Your task to perform on an android device: clear all cookies in the chrome app Image 0: 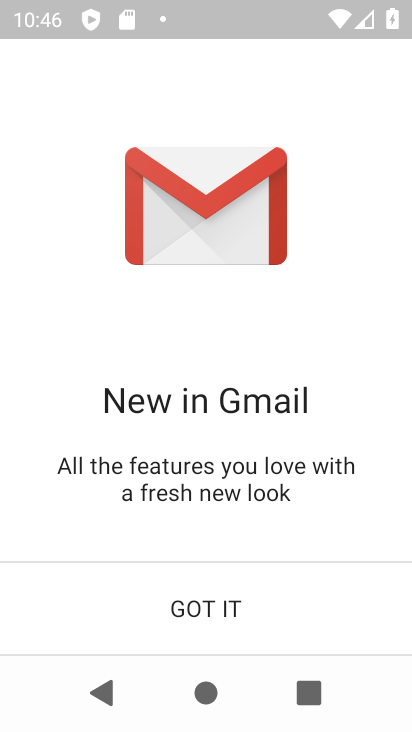
Step 0: press home button
Your task to perform on an android device: clear all cookies in the chrome app Image 1: 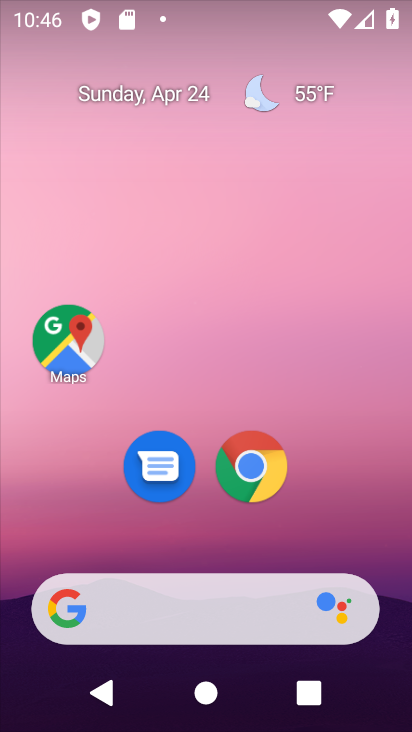
Step 1: click (254, 468)
Your task to perform on an android device: clear all cookies in the chrome app Image 2: 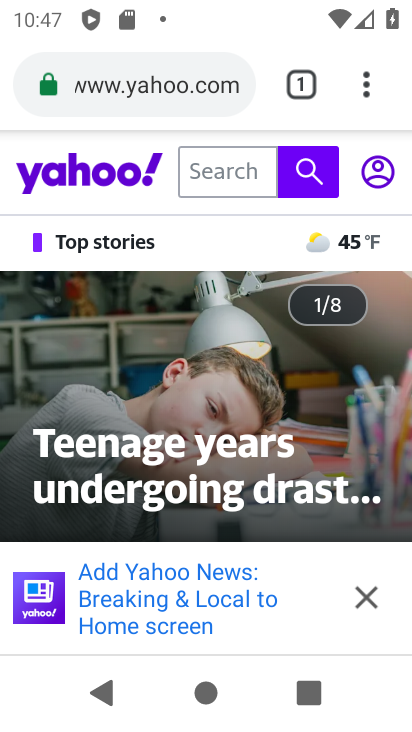
Step 2: drag from (369, 79) to (116, 521)
Your task to perform on an android device: clear all cookies in the chrome app Image 3: 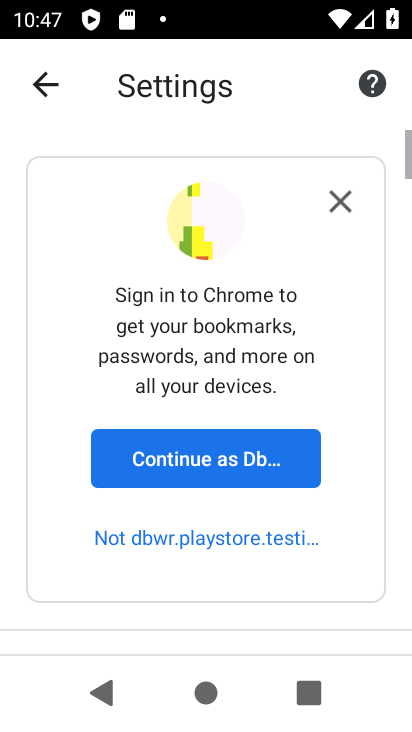
Step 3: drag from (232, 591) to (216, 156)
Your task to perform on an android device: clear all cookies in the chrome app Image 4: 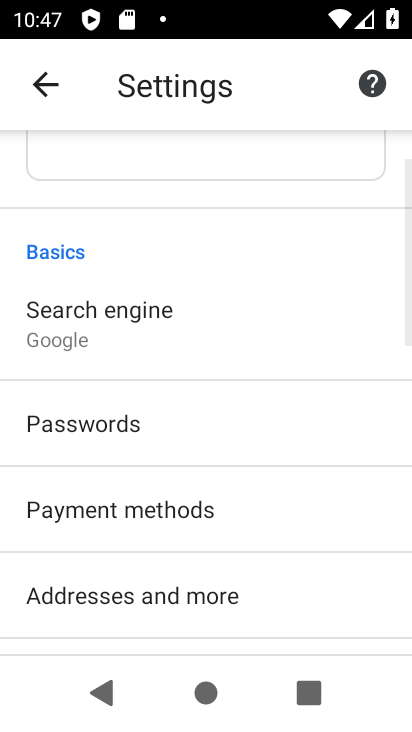
Step 4: drag from (194, 521) to (217, 140)
Your task to perform on an android device: clear all cookies in the chrome app Image 5: 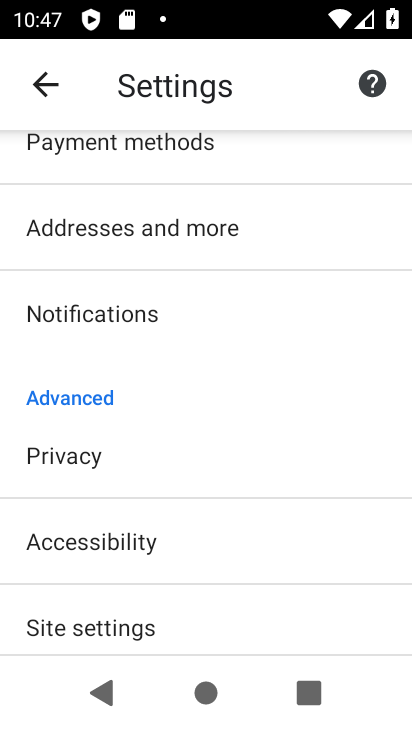
Step 5: click (71, 458)
Your task to perform on an android device: clear all cookies in the chrome app Image 6: 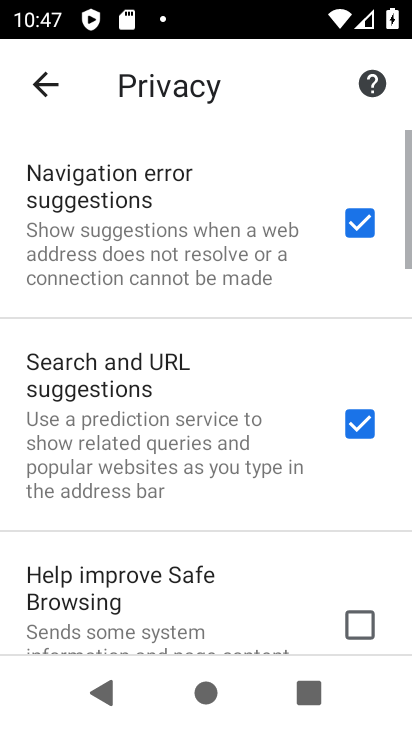
Step 6: drag from (183, 540) to (197, 87)
Your task to perform on an android device: clear all cookies in the chrome app Image 7: 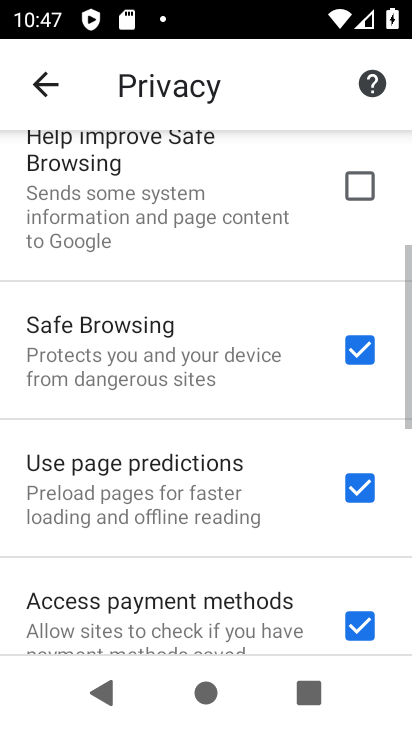
Step 7: click (180, 148)
Your task to perform on an android device: clear all cookies in the chrome app Image 8: 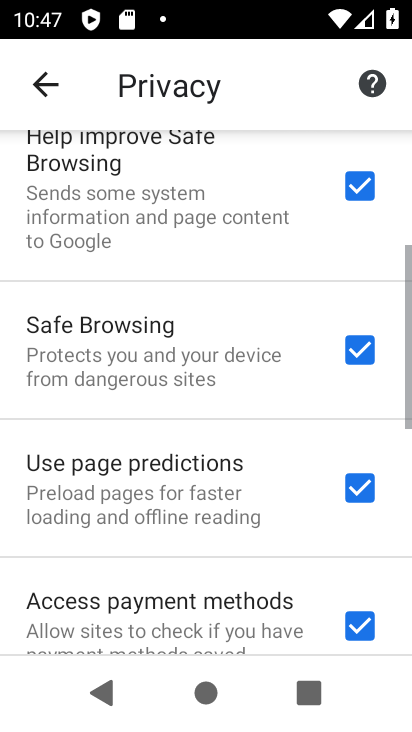
Step 8: drag from (150, 560) to (179, 160)
Your task to perform on an android device: clear all cookies in the chrome app Image 9: 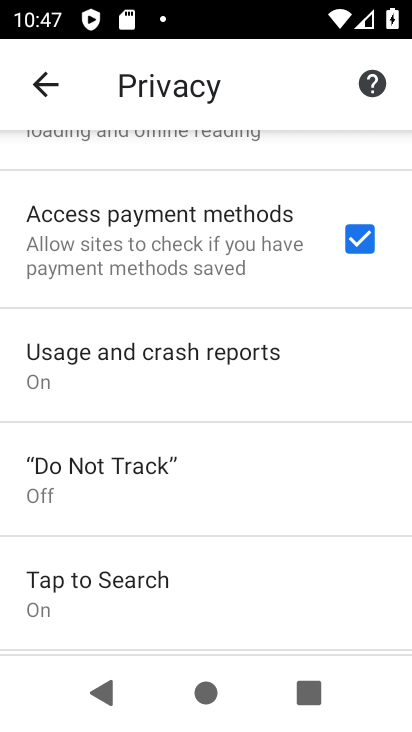
Step 9: drag from (144, 550) to (177, 172)
Your task to perform on an android device: clear all cookies in the chrome app Image 10: 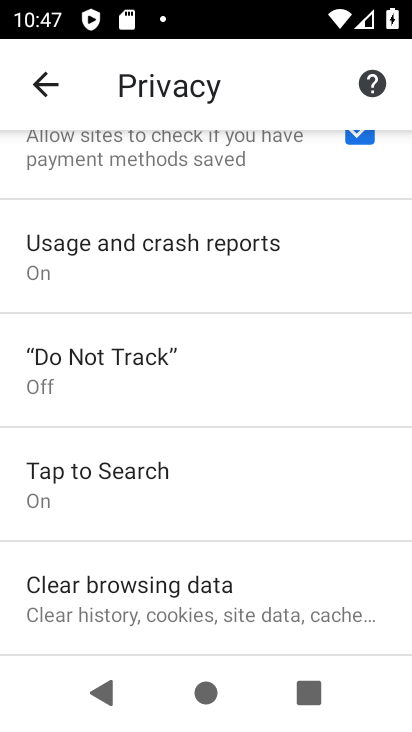
Step 10: click (156, 589)
Your task to perform on an android device: clear all cookies in the chrome app Image 11: 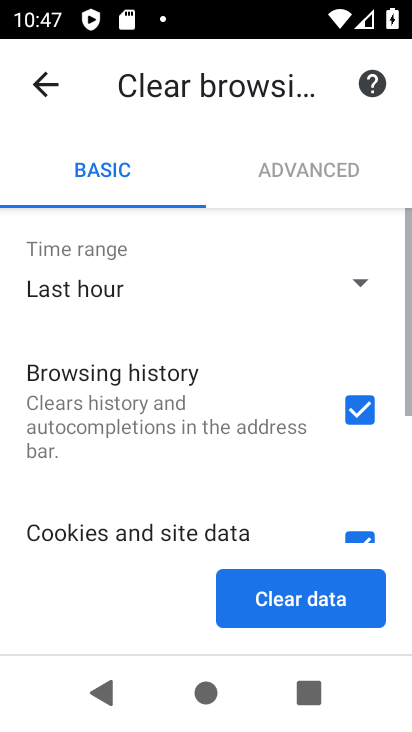
Step 11: click (376, 409)
Your task to perform on an android device: clear all cookies in the chrome app Image 12: 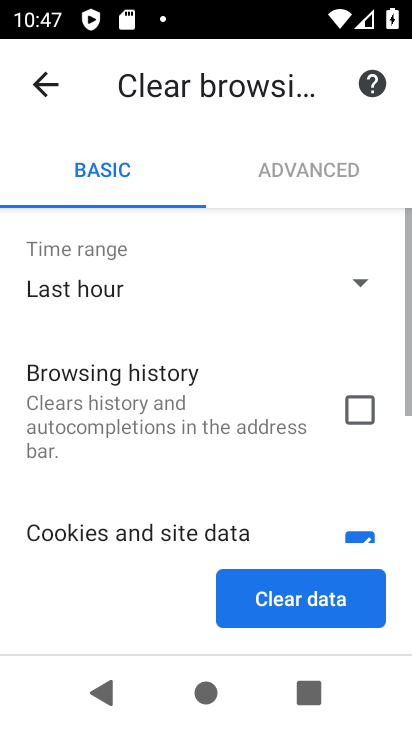
Step 12: drag from (158, 486) to (170, 231)
Your task to perform on an android device: clear all cookies in the chrome app Image 13: 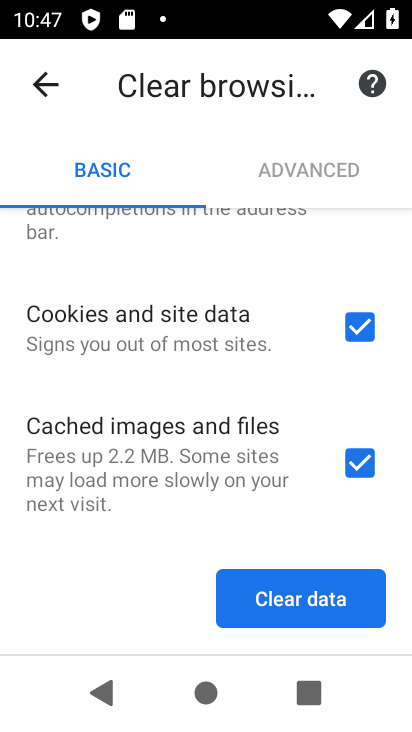
Step 13: click (344, 467)
Your task to perform on an android device: clear all cookies in the chrome app Image 14: 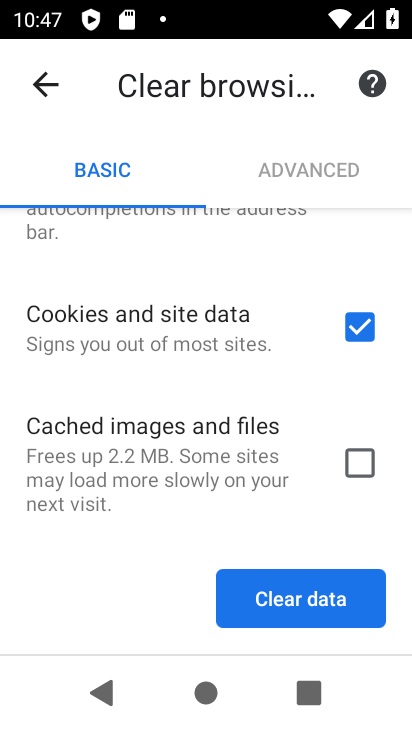
Step 14: click (302, 598)
Your task to perform on an android device: clear all cookies in the chrome app Image 15: 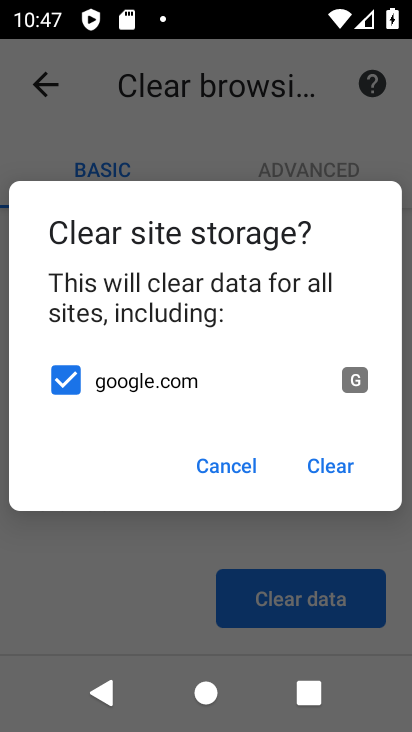
Step 15: click (320, 465)
Your task to perform on an android device: clear all cookies in the chrome app Image 16: 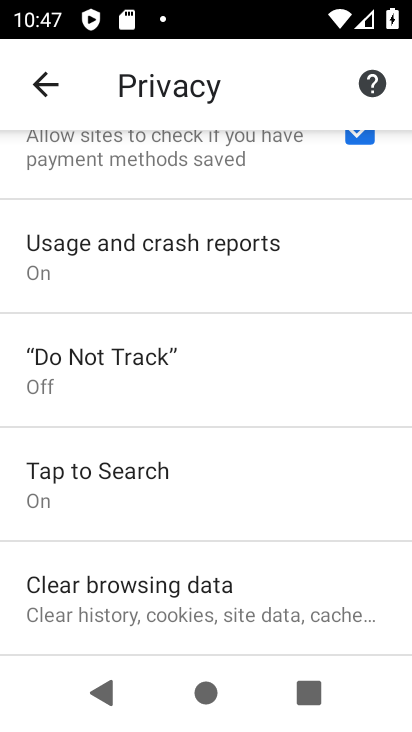
Step 16: task complete